Your task to perform on an android device: check google app version Image 0: 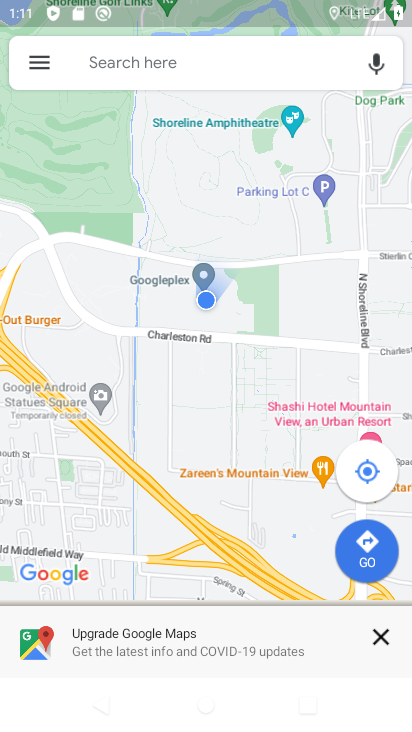
Step 0: press home button
Your task to perform on an android device: check google app version Image 1: 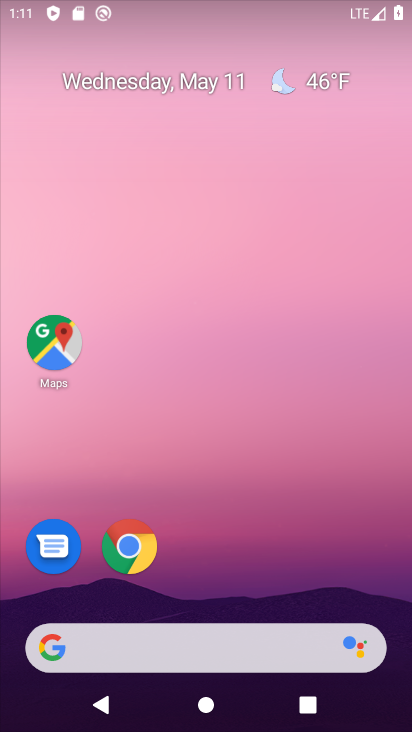
Step 1: drag from (271, 653) to (295, 318)
Your task to perform on an android device: check google app version Image 2: 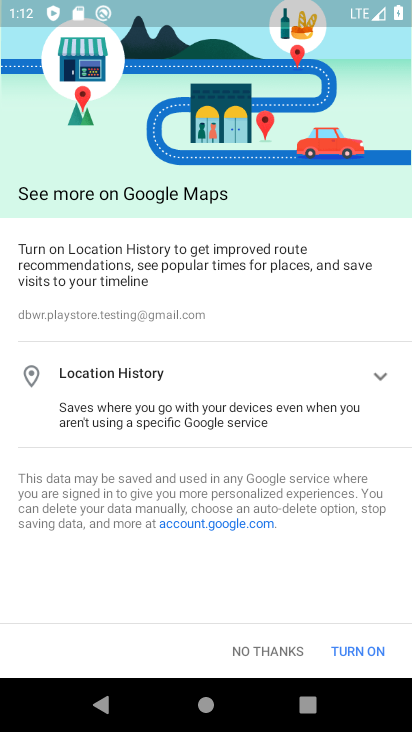
Step 2: click (261, 648)
Your task to perform on an android device: check google app version Image 3: 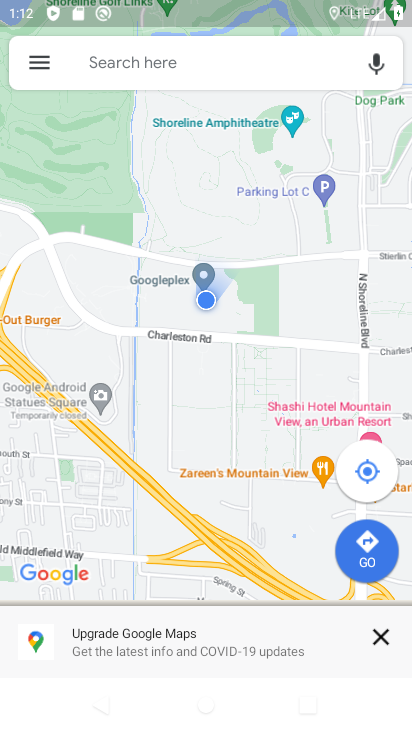
Step 3: click (43, 62)
Your task to perform on an android device: check google app version Image 4: 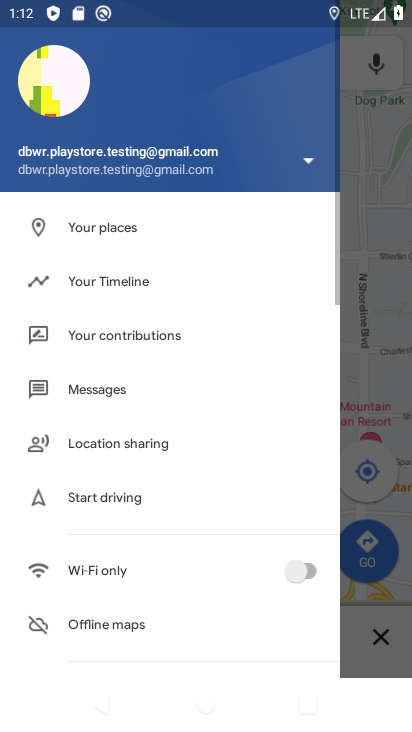
Step 4: drag from (142, 526) to (224, 222)
Your task to perform on an android device: check google app version Image 5: 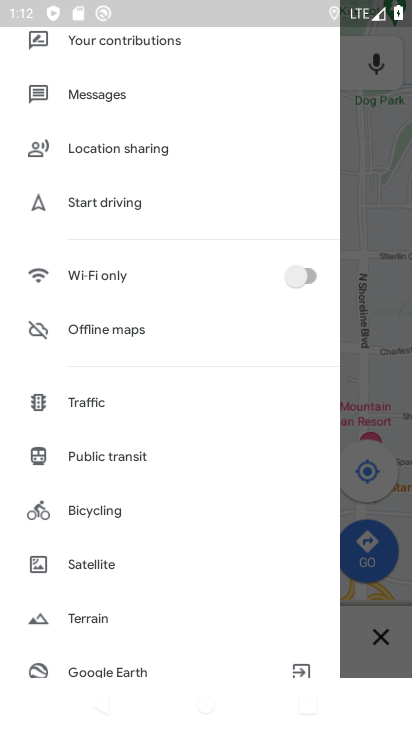
Step 5: drag from (125, 551) to (196, 161)
Your task to perform on an android device: check google app version Image 6: 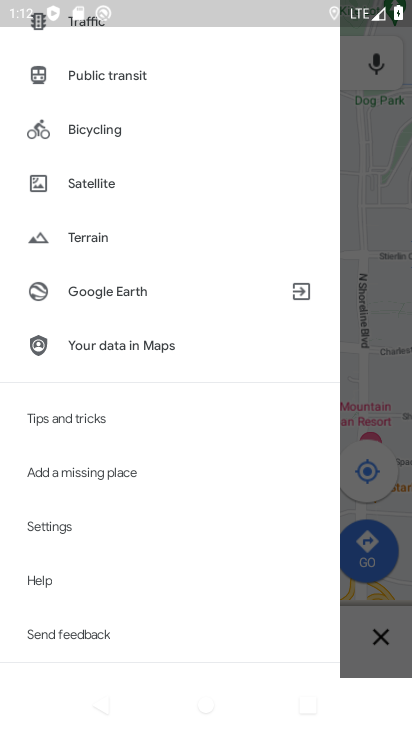
Step 6: drag from (82, 571) to (143, 264)
Your task to perform on an android device: check google app version Image 7: 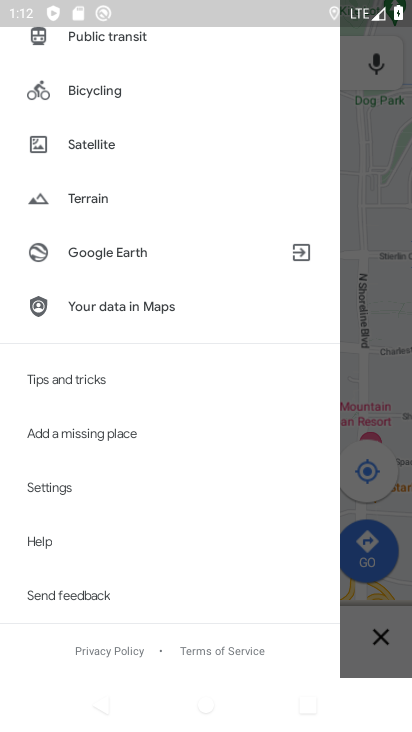
Step 7: click (57, 492)
Your task to perform on an android device: check google app version Image 8: 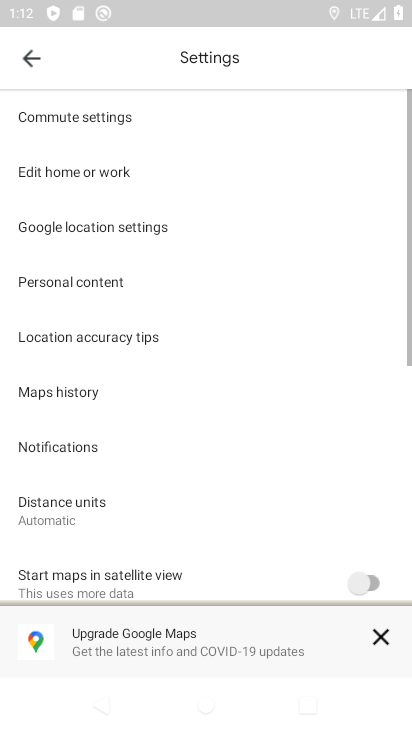
Step 8: drag from (118, 570) to (214, 132)
Your task to perform on an android device: check google app version Image 9: 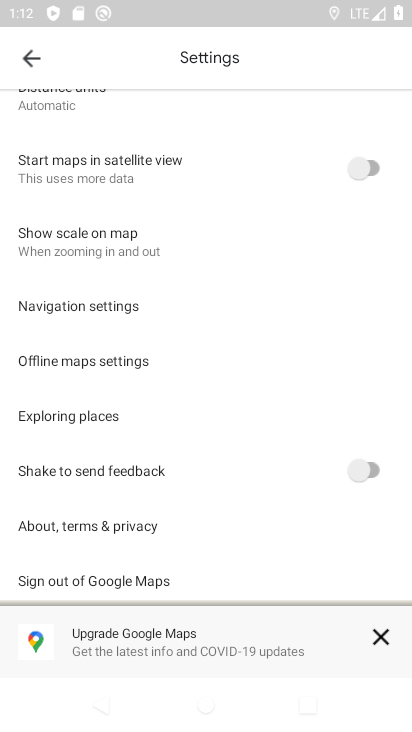
Step 9: drag from (212, 344) to (249, 154)
Your task to perform on an android device: check google app version Image 10: 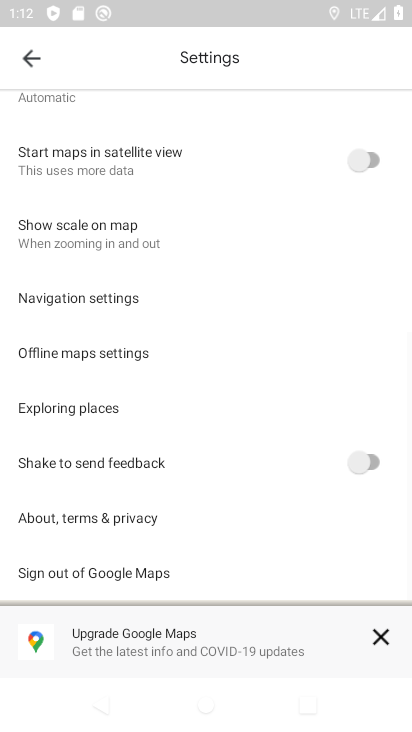
Step 10: drag from (154, 449) to (181, 139)
Your task to perform on an android device: check google app version Image 11: 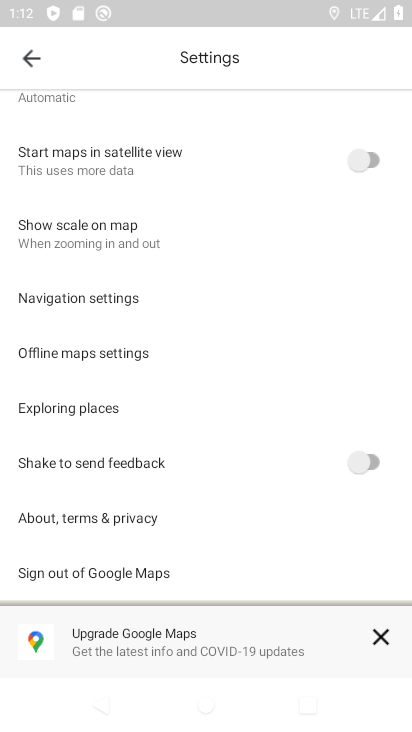
Step 11: click (125, 518)
Your task to perform on an android device: check google app version Image 12: 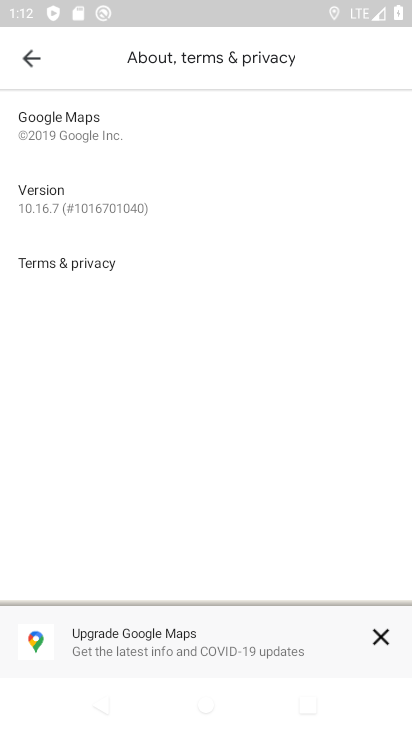
Step 12: click (125, 134)
Your task to perform on an android device: check google app version Image 13: 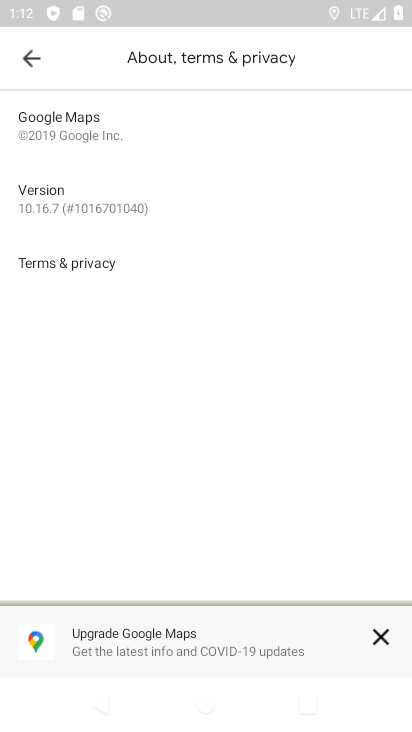
Step 13: click (138, 219)
Your task to perform on an android device: check google app version Image 14: 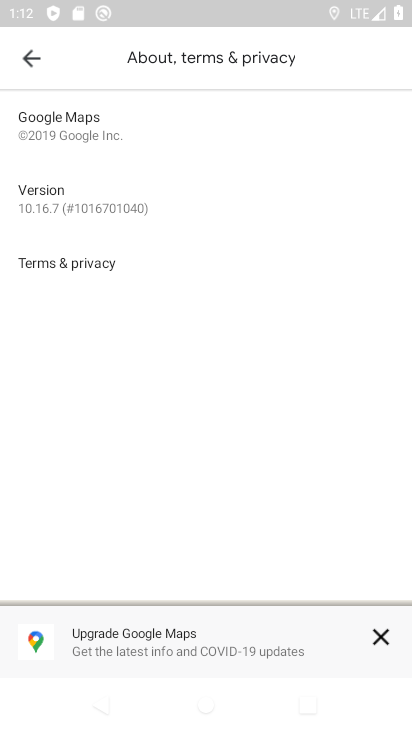
Step 14: task complete